Your task to perform on an android device: change text size in settings app Image 0: 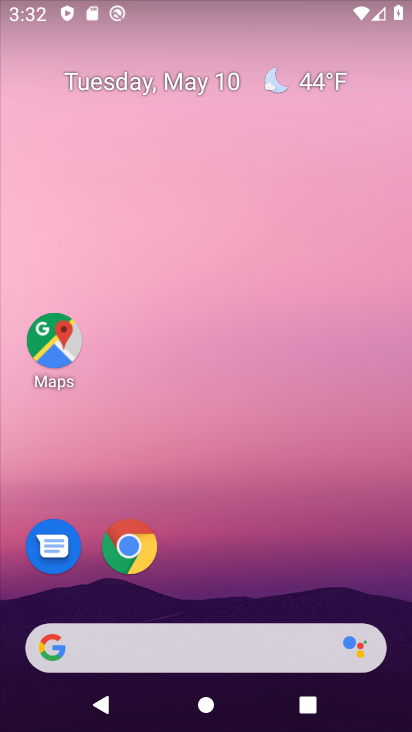
Step 0: drag from (217, 628) to (301, 168)
Your task to perform on an android device: change text size in settings app Image 1: 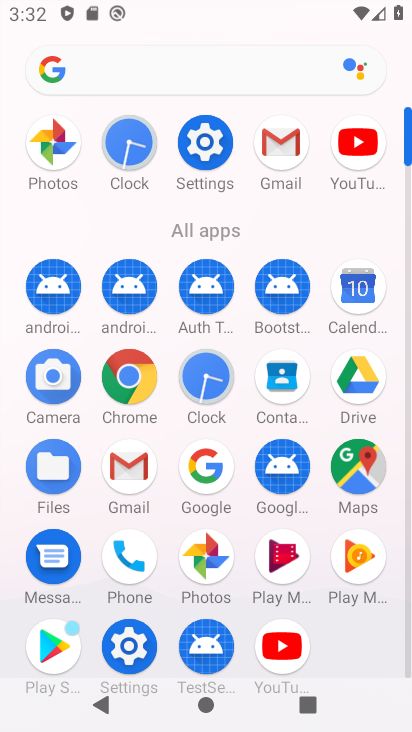
Step 1: click (129, 648)
Your task to perform on an android device: change text size in settings app Image 2: 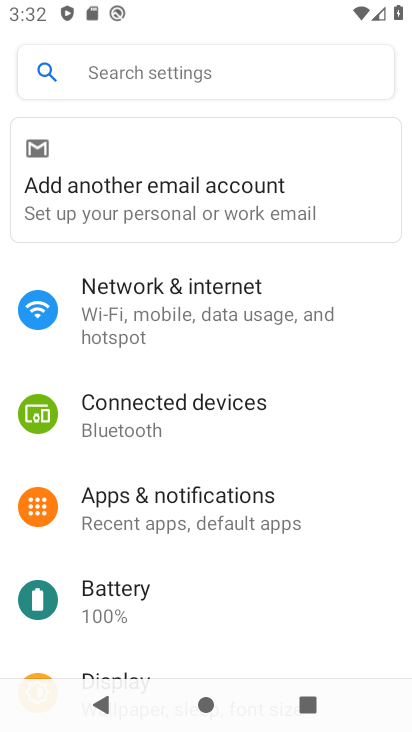
Step 2: drag from (216, 631) to (297, 157)
Your task to perform on an android device: change text size in settings app Image 3: 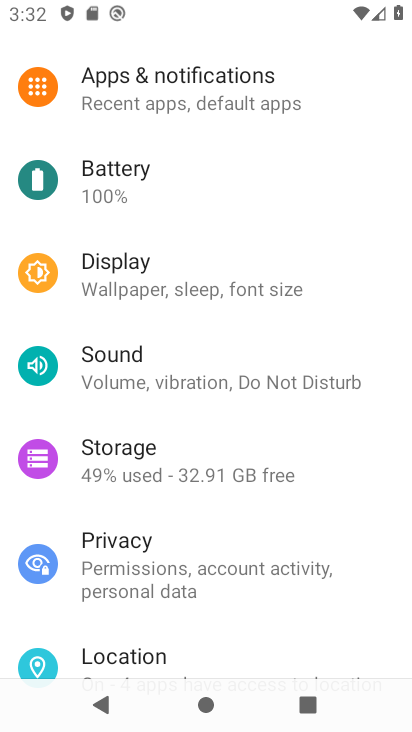
Step 3: drag from (184, 583) to (308, 186)
Your task to perform on an android device: change text size in settings app Image 4: 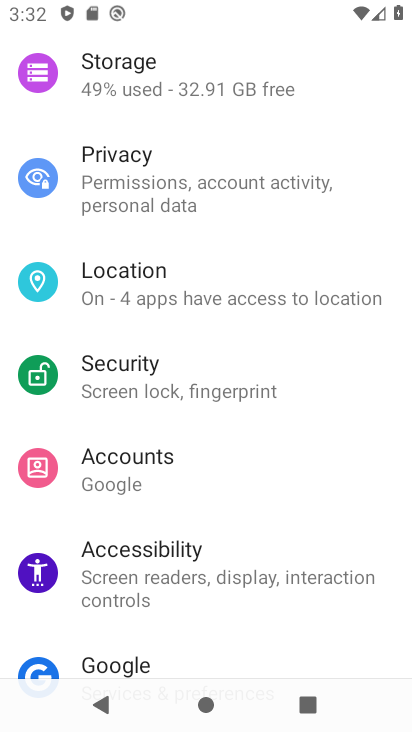
Step 4: drag from (122, 584) to (249, 215)
Your task to perform on an android device: change text size in settings app Image 5: 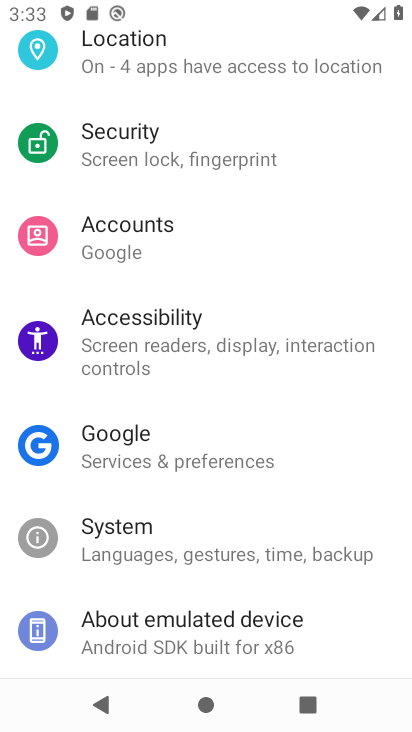
Step 5: drag from (144, 166) to (139, 510)
Your task to perform on an android device: change text size in settings app Image 6: 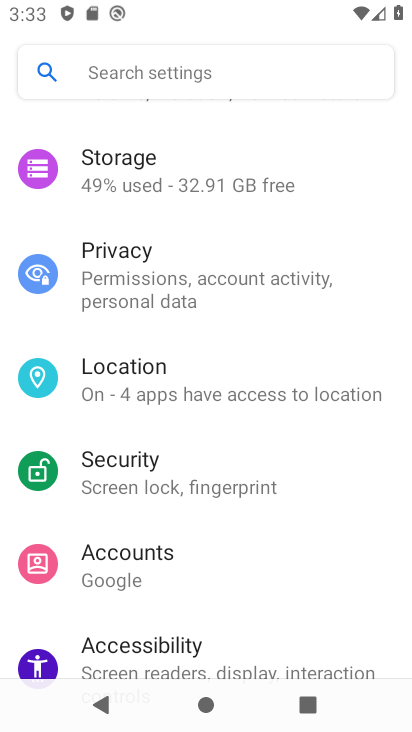
Step 6: drag from (203, 225) to (164, 542)
Your task to perform on an android device: change text size in settings app Image 7: 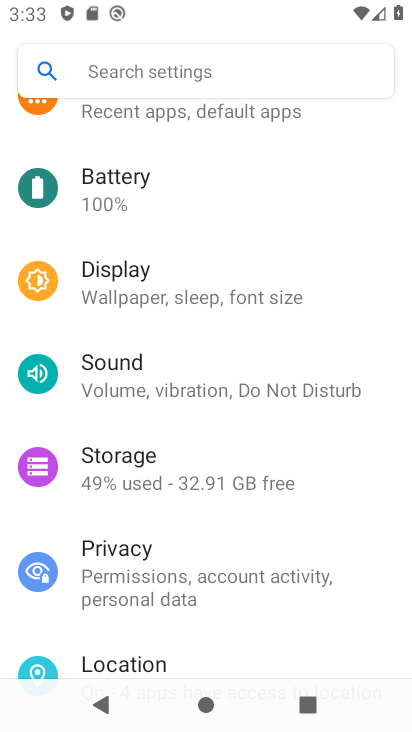
Step 7: click (149, 298)
Your task to perform on an android device: change text size in settings app Image 8: 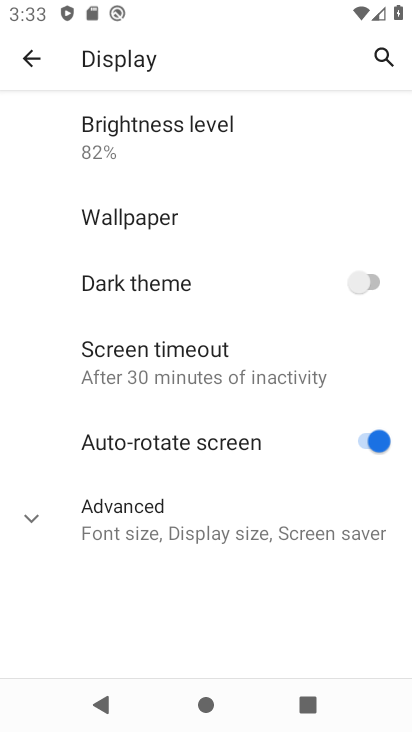
Step 8: click (187, 532)
Your task to perform on an android device: change text size in settings app Image 9: 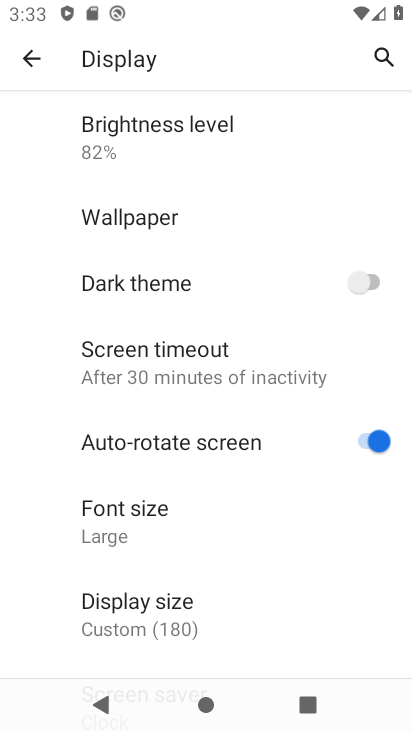
Step 9: click (186, 530)
Your task to perform on an android device: change text size in settings app Image 10: 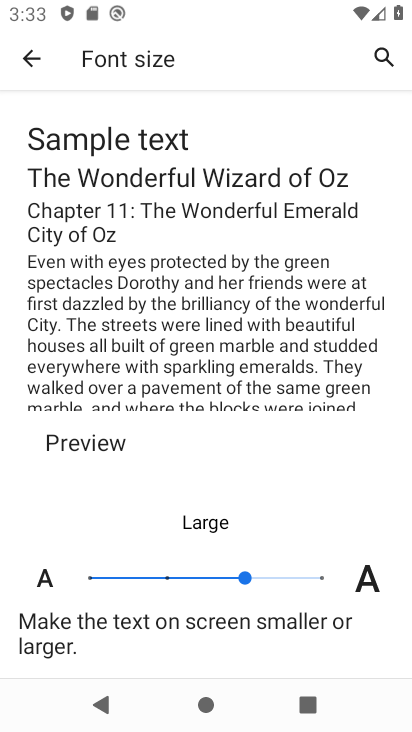
Step 10: task complete